Your task to perform on an android device: Go to CNN.com Image 0: 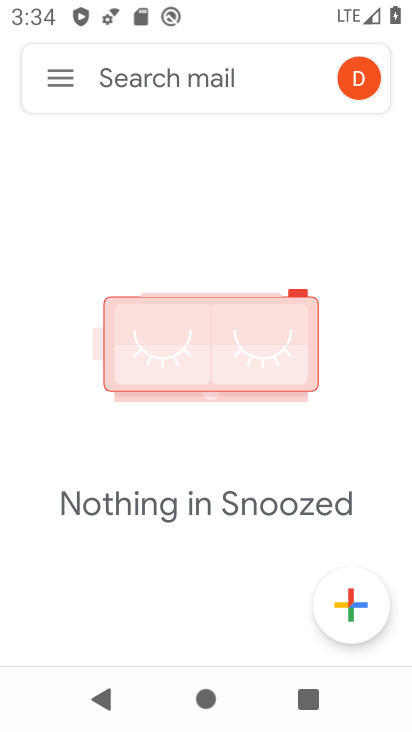
Step 0: press home button
Your task to perform on an android device: Go to CNN.com Image 1: 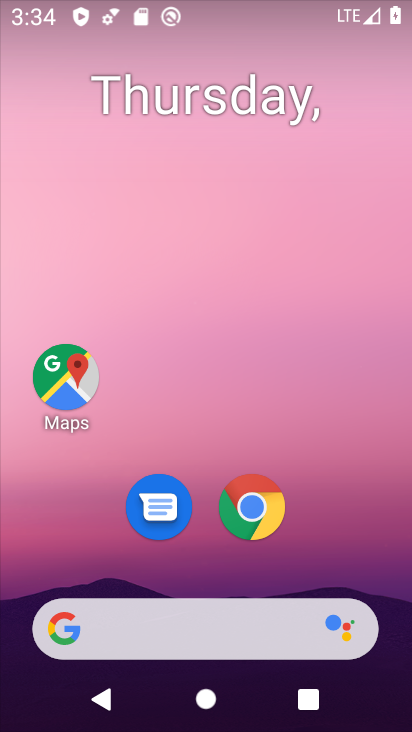
Step 1: click (250, 514)
Your task to perform on an android device: Go to CNN.com Image 2: 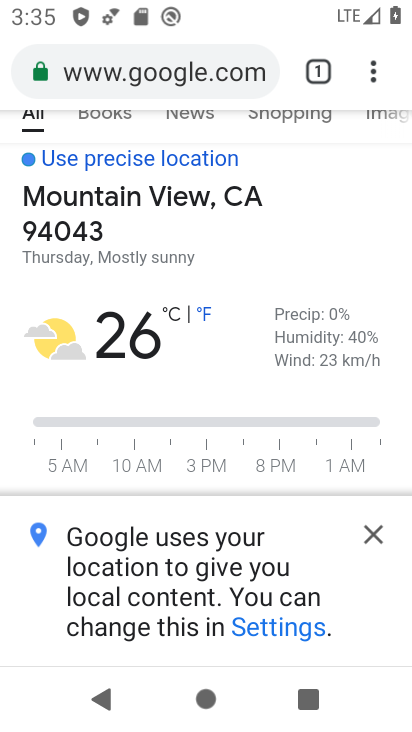
Step 2: click (204, 88)
Your task to perform on an android device: Go to CNN.com Image 3: 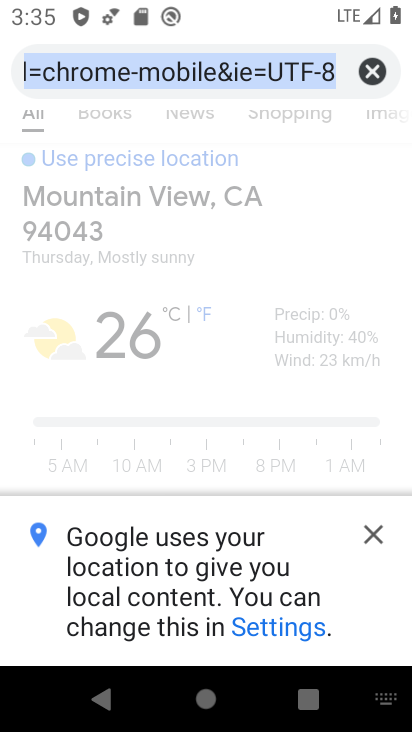
Step 3: click (376, 63)
Your task to perform on an android device: Go to CNN.com Image 4: 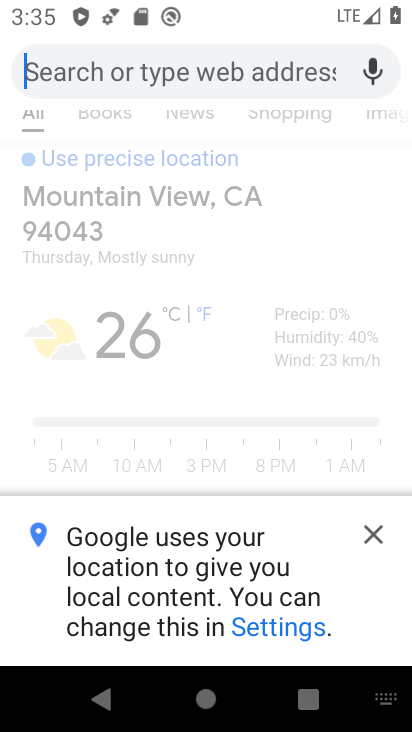
Step 4: type "CNN.com"
Your task to perform on an android device: Go to CNN.com Image 5: 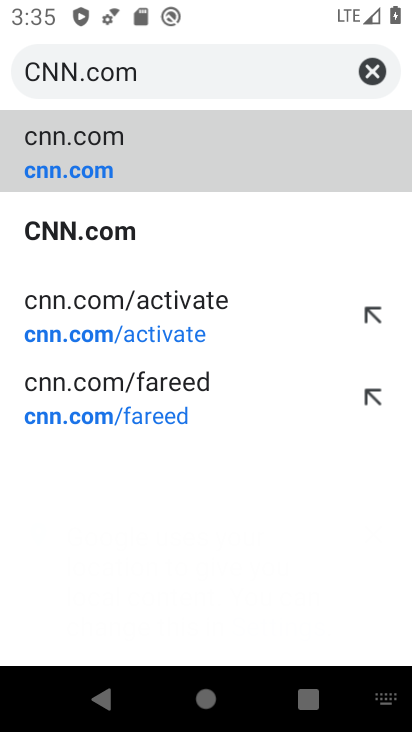
Step 5: click (319, 159)
Your task to perform on an android device: Go to CNN.com Image 6: 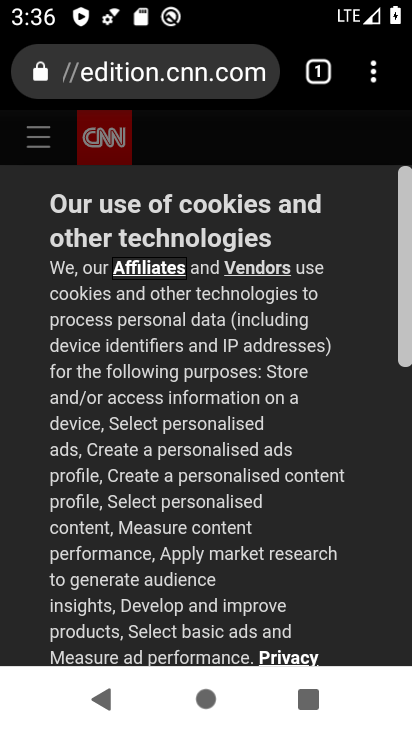
Step 6: task complete